Your task to perform on an android device: toggle show notifications on the lock screen Image 0: 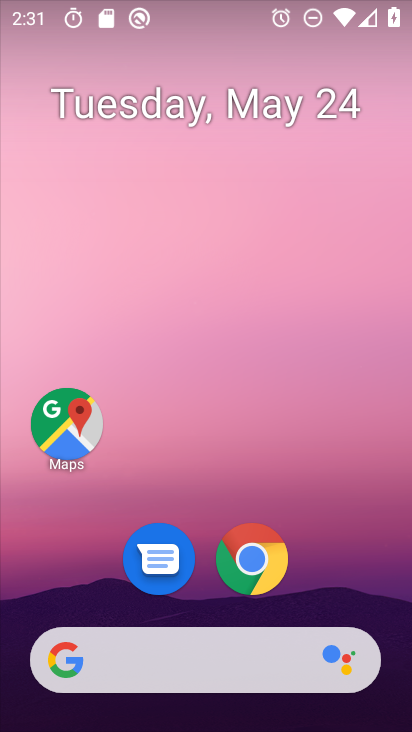
Step 0: drag from (402, 687) to (381, 278)
Your task to perform on an android device: toggle show notifications on the lock screen Image 1: 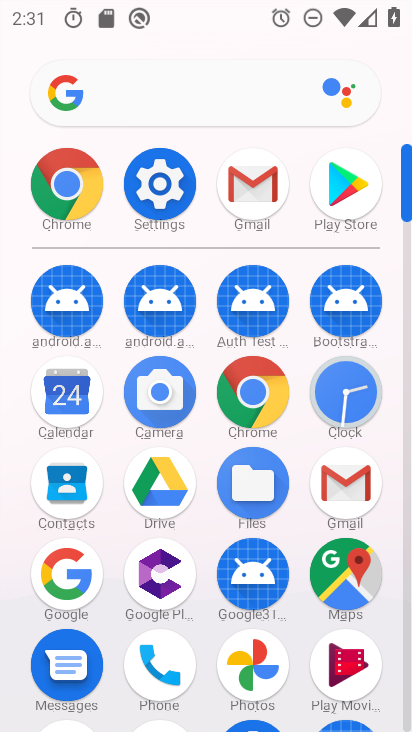
Step 1: click (158, 200)
Your task to perform on an android device: toggle show notifications on the lock screen Image 2: 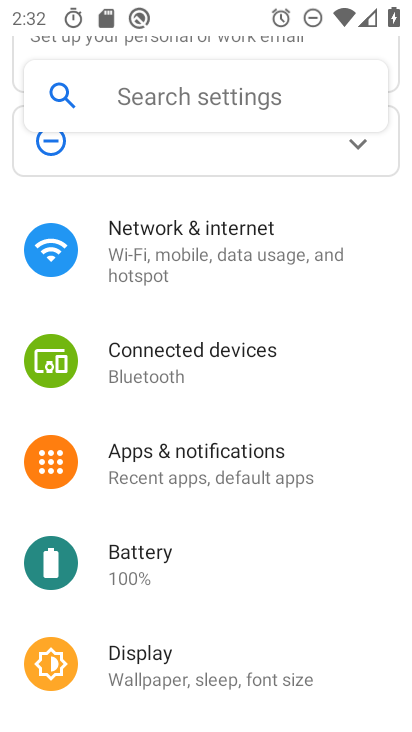
Step 2: click (159, 449)
Your task to perform on an android device: toggle show notifications on the lock screen Image 3: 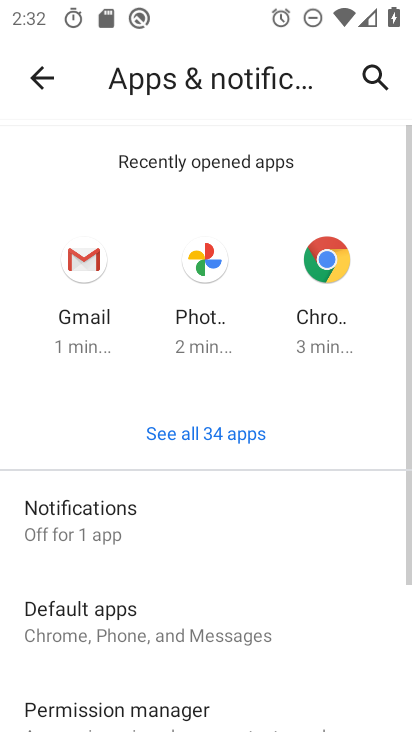
Step 3: click (86, 517)
Your task to perform on an android device: toggle show notifications on the lock screen Image 4: 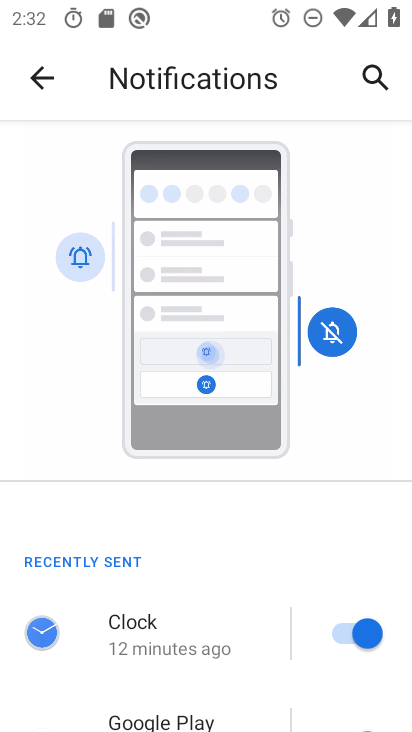
Step 4: drag from (275, 709) to (249, 247)
Your task to perform on an android device: toggle show notifications on the lock screen Image 5: 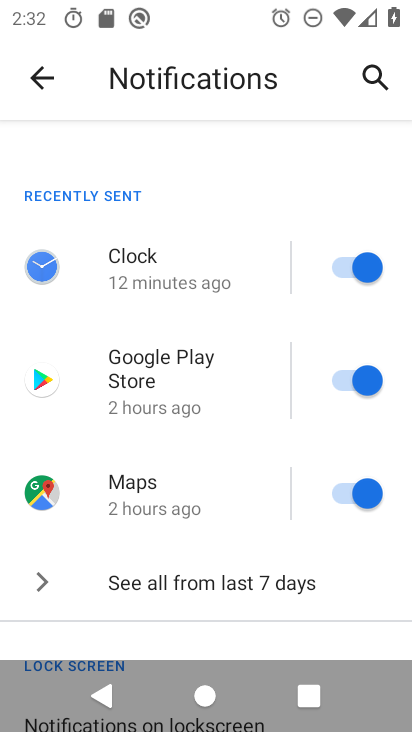
Step 5: drag from (232, 632) to (248, 202)
Your task to perform on an android device: toggle show notifications on the lock screen Image 6: 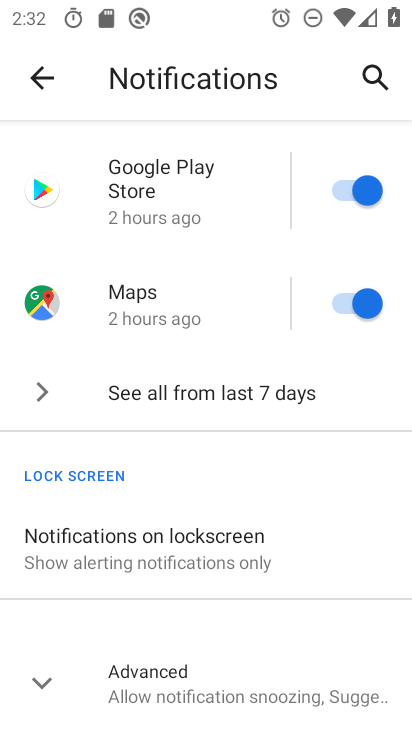
Step 6: click (147, 539)
Your task to perform on an android device: toggle show notifications on the lock screen Image 7: 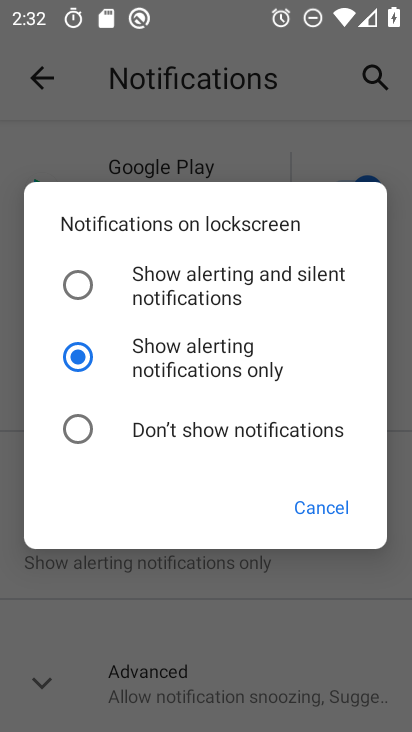
Step 7: click (74, 290)
Your task to perform on an android device: toggle show notifications on the lock screen Image 8: 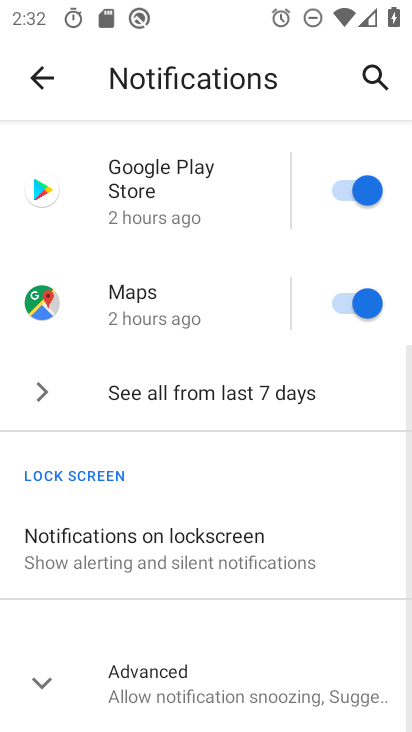
Step 8: task complete